Your task to perform on an android device: Open wifi settings Image 0: 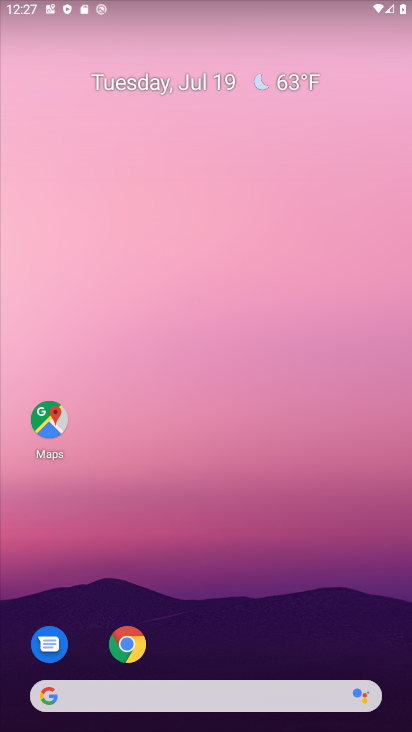
Step 0: drag from (208, 730) to (223, 289)
Your task to perform on an android device: Open wifi settings Image 1: 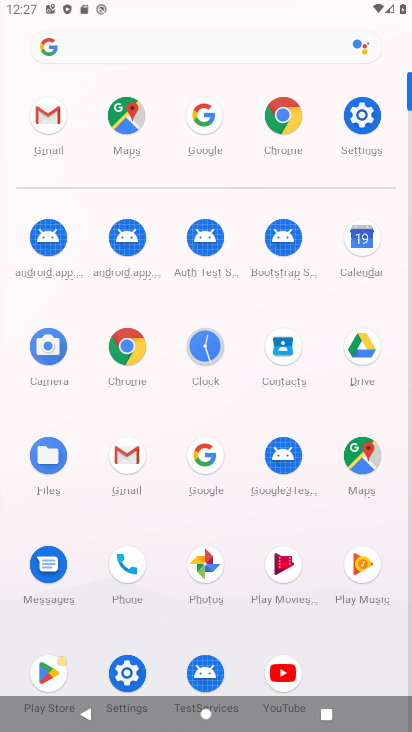
Step 1: click (361, 126)
Your task to perform on an android device: Open wifi settings Image 2: 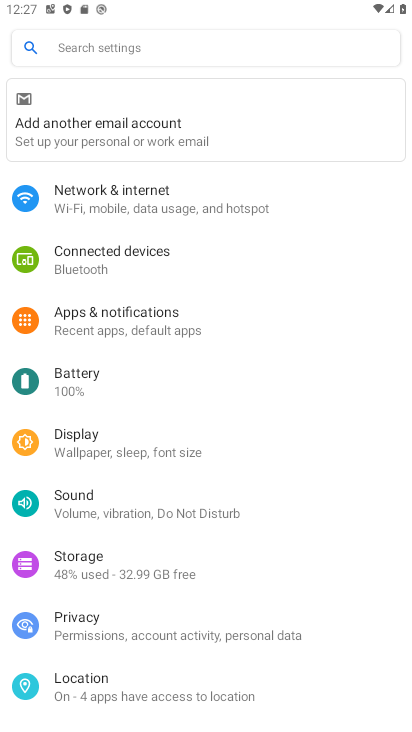
Step 2: click (86, 197)
Your task to perform on an android device: Open wifi settings Image 3: 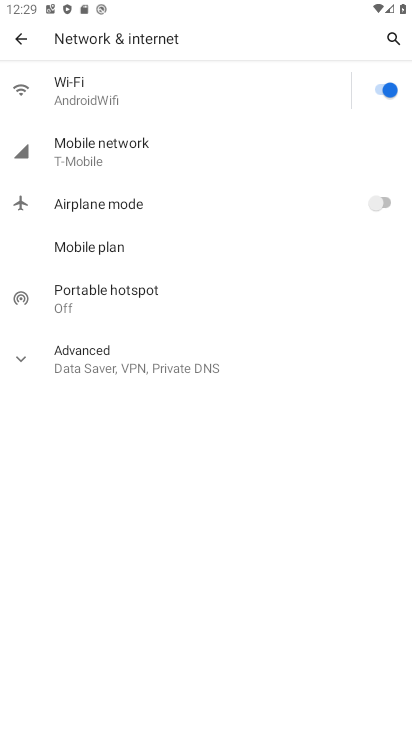
Step 3: click (56, 88)
Your task to perform on an android device: Open wifi settings Image 4: 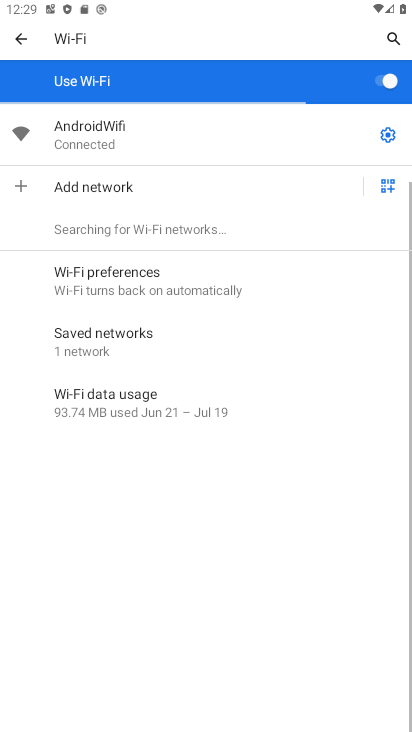
Step 4: task complete